Your task to perform on an android device: Toggle the flashlight Image 0: 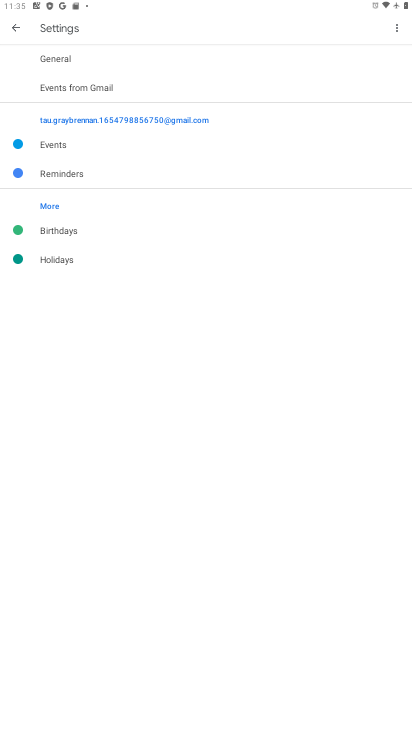
Step 0: task complete